Your task to perform on an android device: turn on translation in the chrome app Image 0: 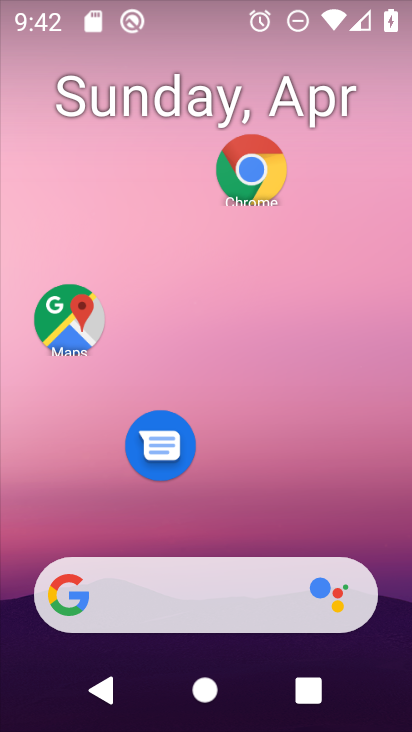
Step 0: click (257, 172)
Your task to perform on an android device: turn on translation in the chrome app Image 1: 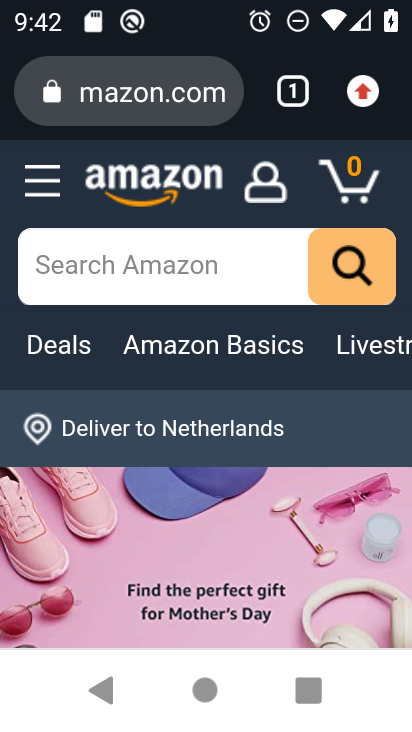
Step 1: click (365, 90)
Your task to perform on an android device: turn on translation in the chrome app Image 2: 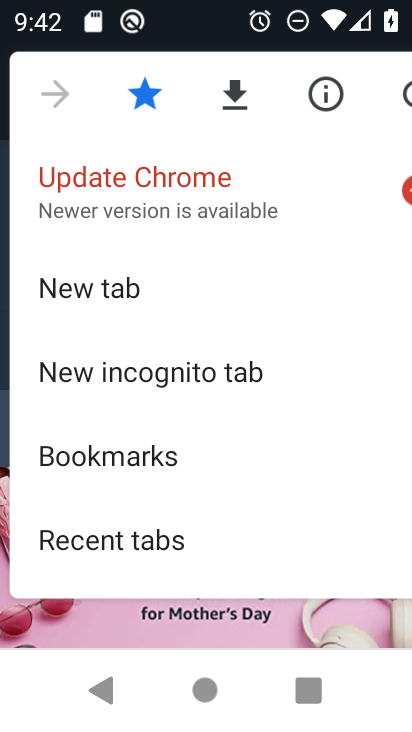
Step 2: drag from (257, 461) to (318, 129)
Your task to perform on an android device: turn on translation in the chrome app Image 3: 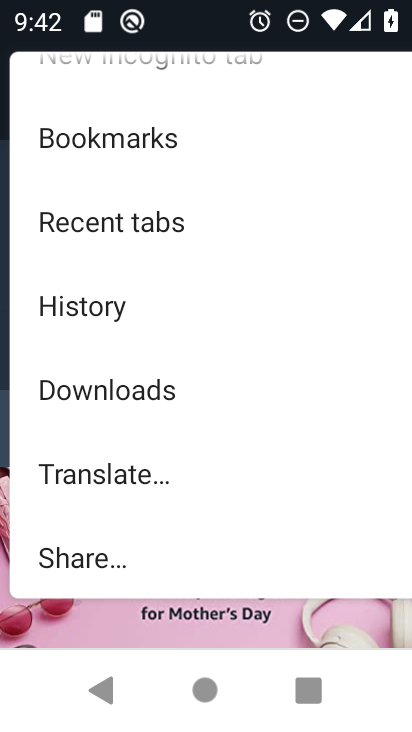
Step 3: drag from (250, 491) to (297, 140)
Your task to perform on an android device: turn on translation in the chrome app Image 4: 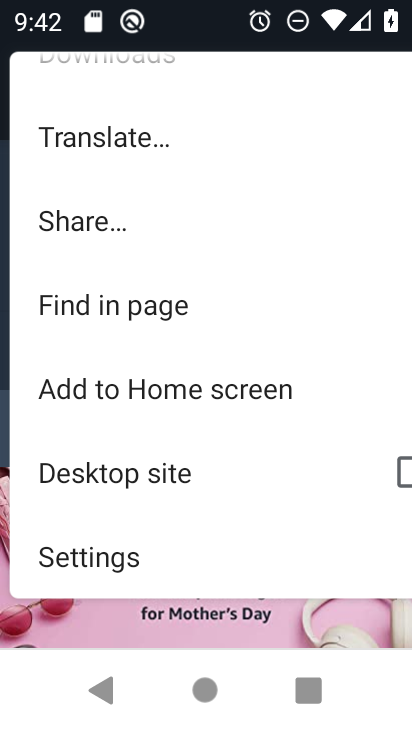
Step 4: click (115, 555)
Your task to perform on an android device: turn on translation in the chrome app Image 5: 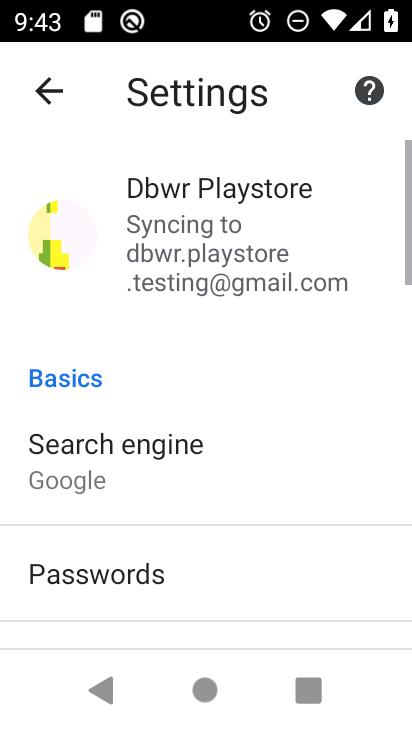
Step 5: drag from (202, 526) to (221, 51)
Your task to perform on an android device: turn on translation in the chrome app Image 6: 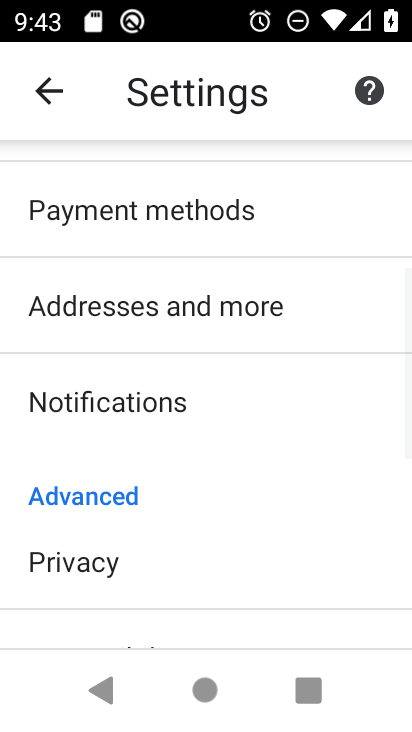
Step 6: drag from (208, 516) to (225, 299)
Your task to perform on an android device: turn on translation in the chrome app Image 7: 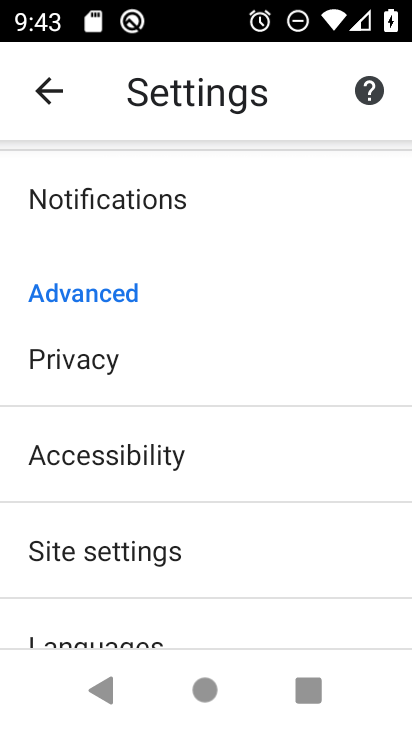
Step 7: click (106, 368)
Your task to perform on an android device: turn on translation in the chrome app Image 8: 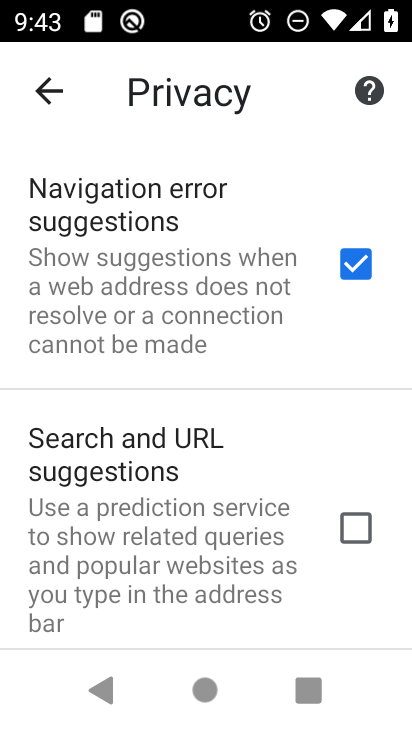
Step 8: press back button
Your task to perform on an android device: turn on translation in the chrome app Image 9: 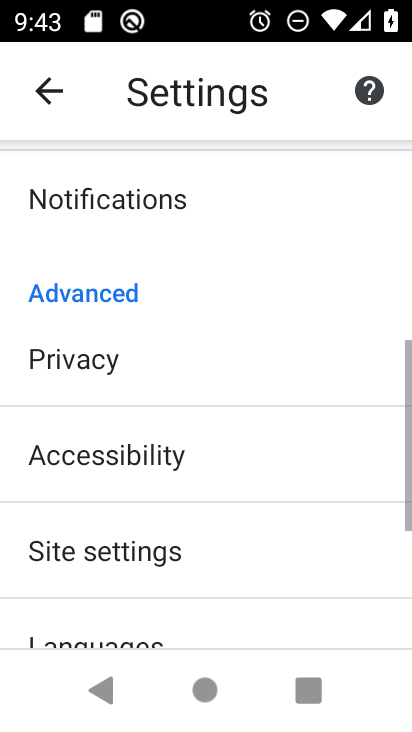
Step 9: drag from (209, 590) to (249, 230)
Your task to perform on an android device: turn on translation in the chrome app Image 10: 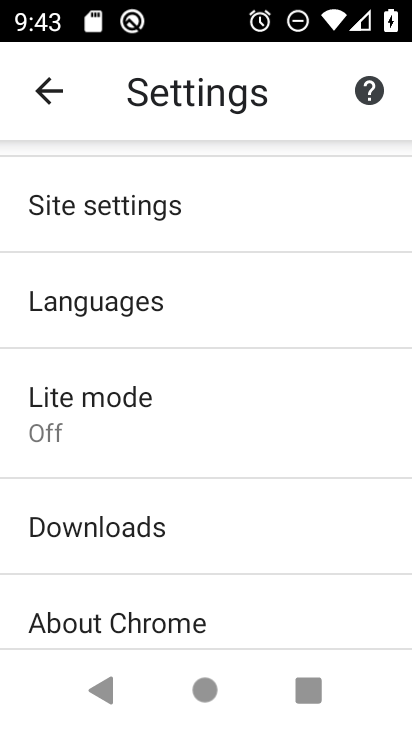
Step 10: click (122, 304)
Your task to perform on an android device: turn on translation in the chrome app Image 11: 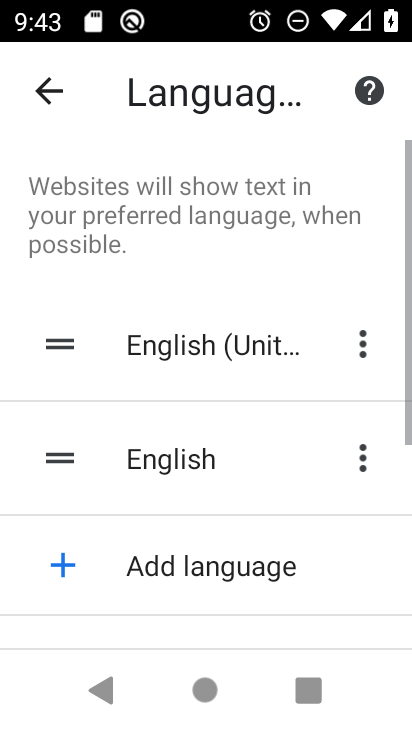
Step 11: drag from (297, 522) to (303, 177)
Your task to perform on an android device: turn on translation in the chrome app Image 12: 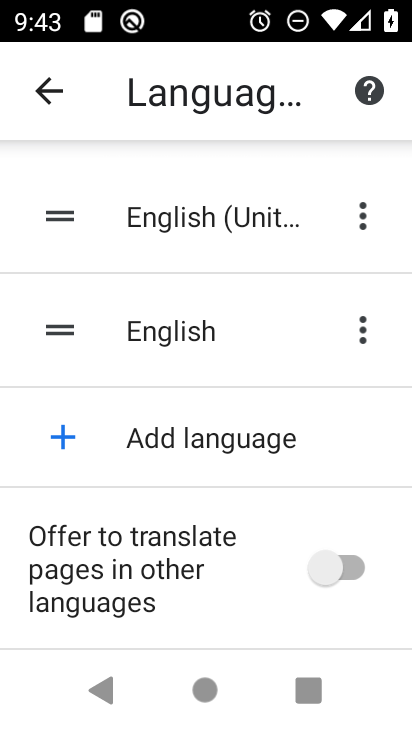
Step 12: click (332, 574)
Your task to perform on an android device: turn on translation in the chrome app Image 13: 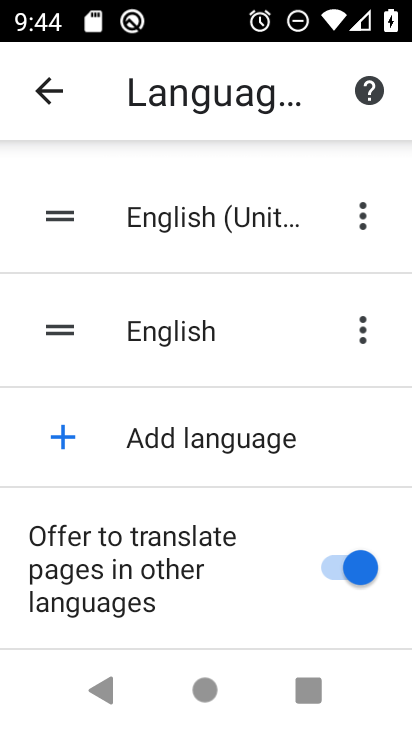
Step 13: task complete